Your task to perform on an android device: turn on the 12-hour format for clock Image 0: 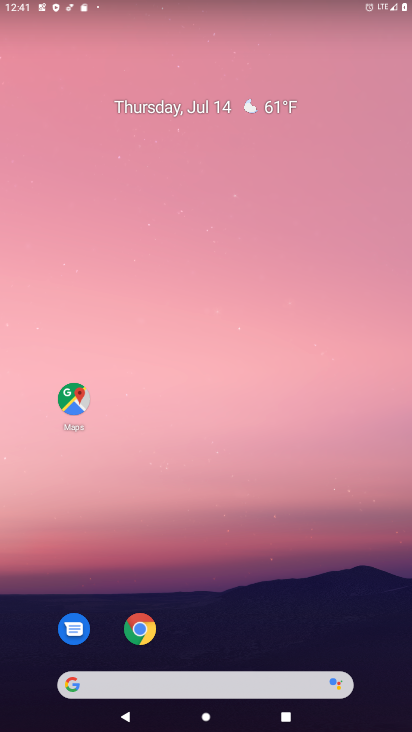
Step 0: drag from (214, 587) to (121, 30)
Your task to perform on an android device: turn on the 12-hour format for clock Image 1: 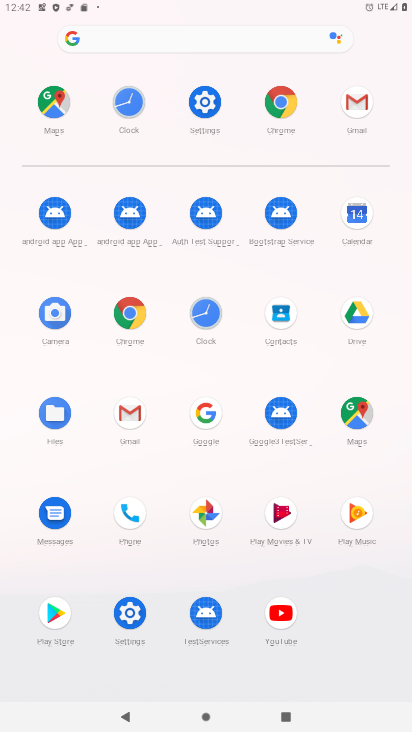
Step 1: click (210, 310)
Your task to perform on an android device: turn on the 12-hour format for clock Image 2: 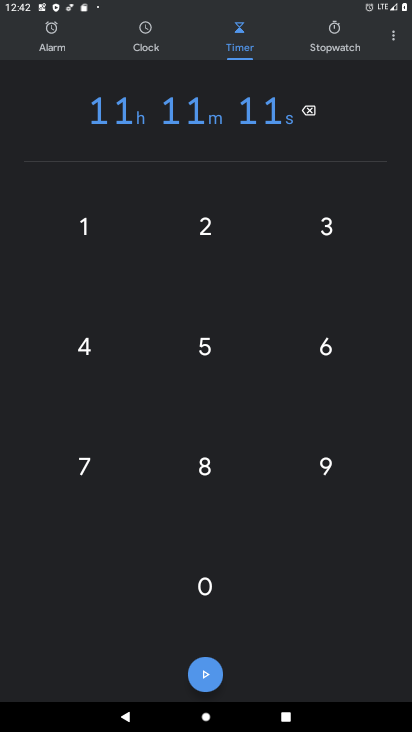
Step 2: click (394, 40)
Your task to perform on an android device: turn on the 12-hour format for clock Image 3: 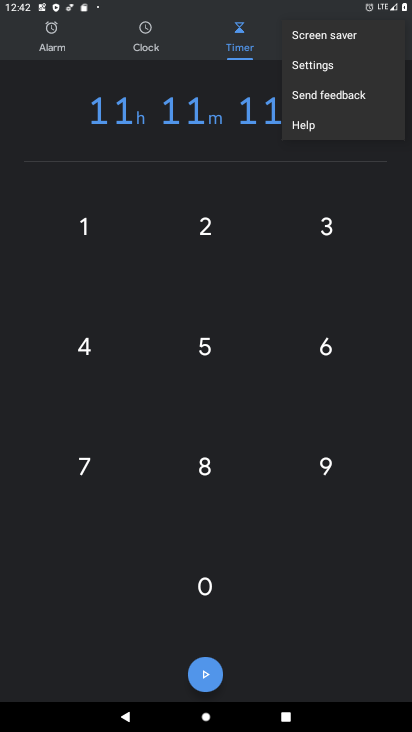
Step 3: click (321, 64)
Your task to perform on an android device: turn on the 12-hour format for clock Image 4: 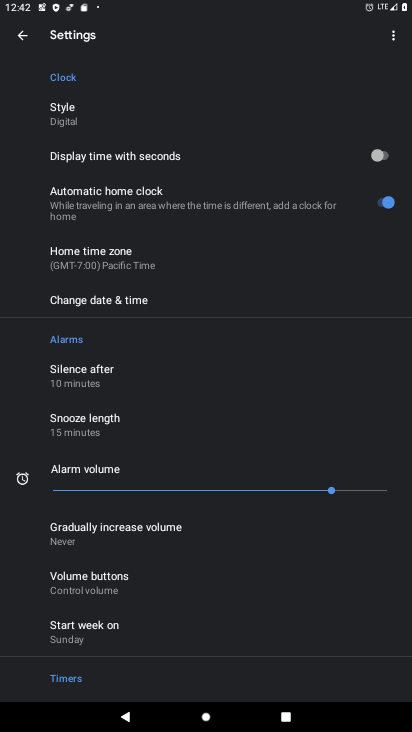
Step 4: click (126, 295)
Your task to perform on an android device: turn on the 12-hour format for clock Image 5: 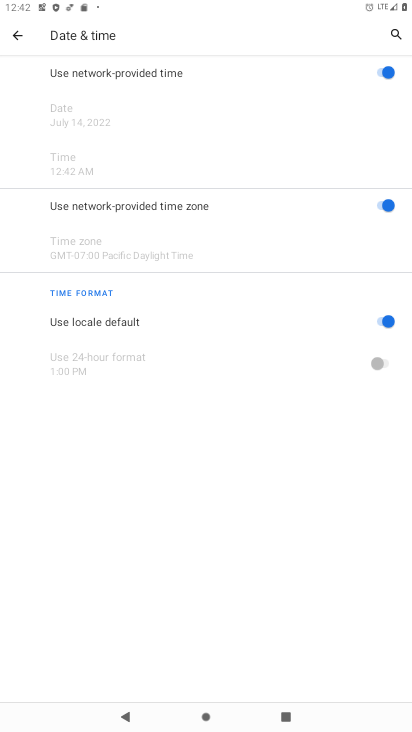
Step 5: task complete